Your task to perform on an android device: turn on bluetooth scan Image 0: 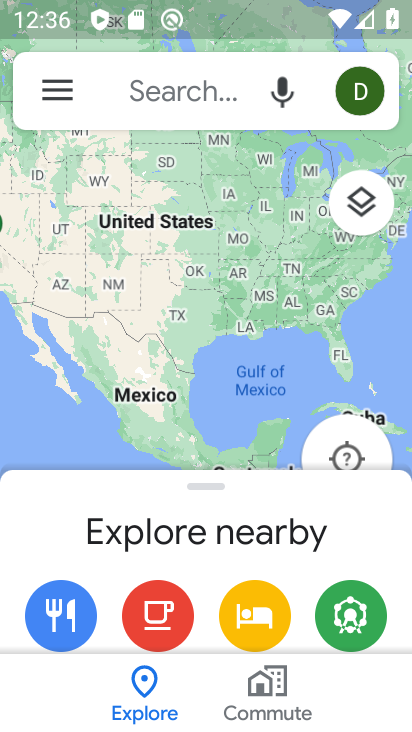
Step 0: press home button
Your task to perform on an android device: turn on bluetooth scan Image 1: 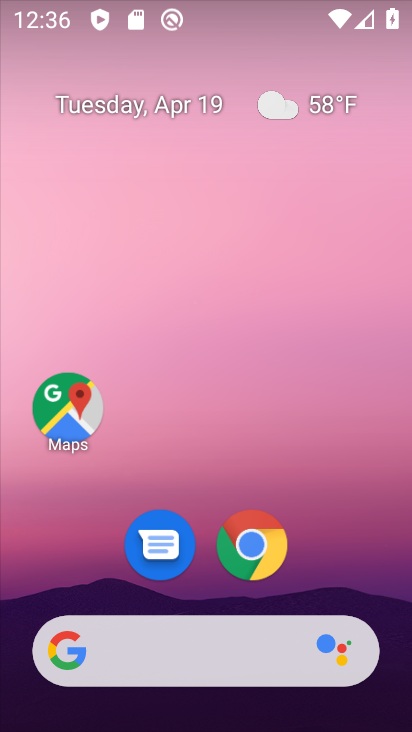
Step 1: drag from (145, 416) to (257, 7)
Your task to perform on an android device: turn on bluetooth scan Image 2: 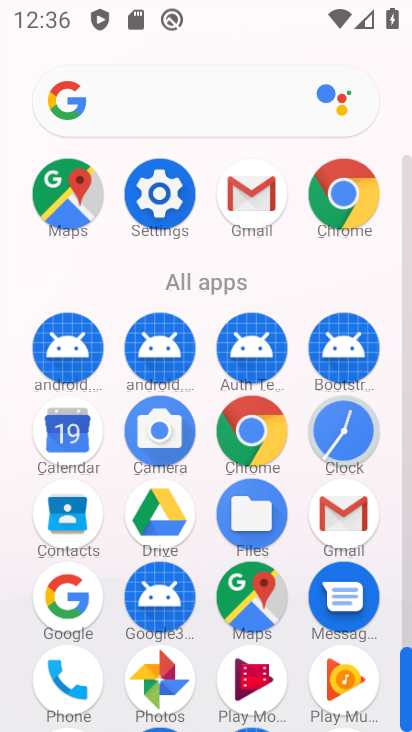
Step 2: click (171, 186)
Your task to perform on an android device: turn on bluetooth scan Image 3: 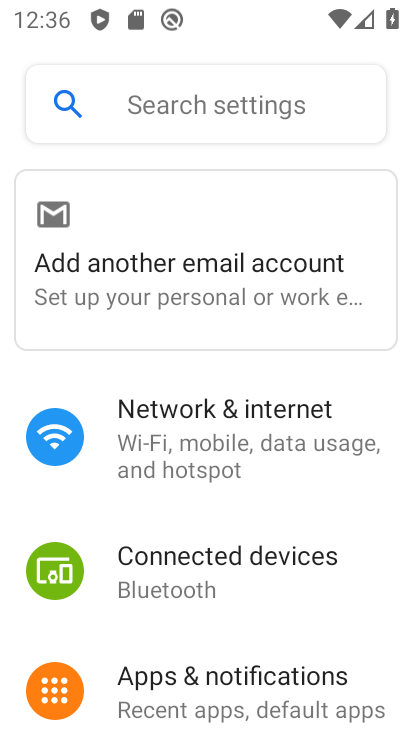
Step 3: drag from (218, 591) to (317, 123)
Your task to perform on an android device: turn on bluetooth scan Image 4: 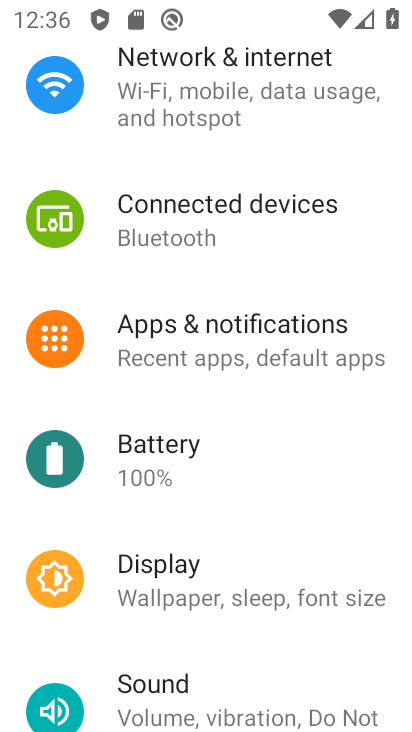
Step 4: drag from (215, 530) to (296, 120)
Your task to perform on an android device: turn on bluetooth scan Image 5: 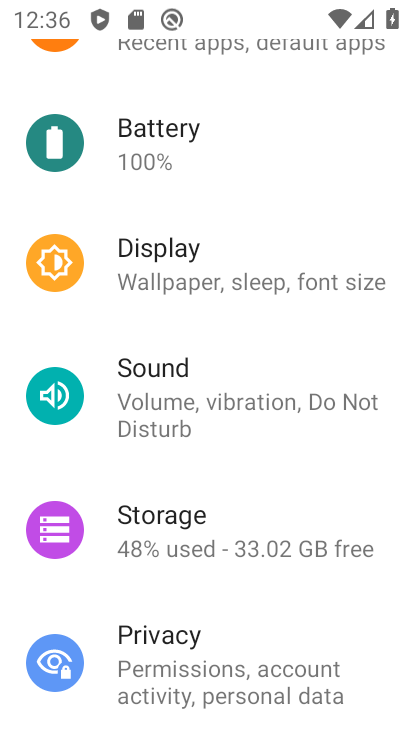
Step 5: drag from (182, 533) to (264, 90)
Your task to perform on an android device: turn on bluetooth scan Image 6: 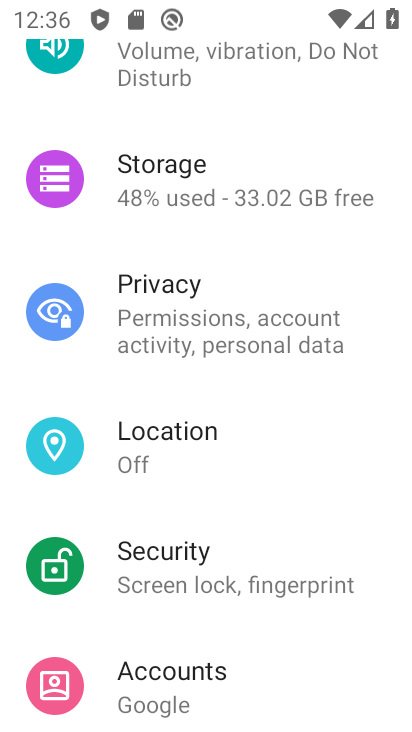
Step 6: drag from (218, 87) to (172, 651)
Your task to perform on an android device: turn on bluetooth scan Image 7: 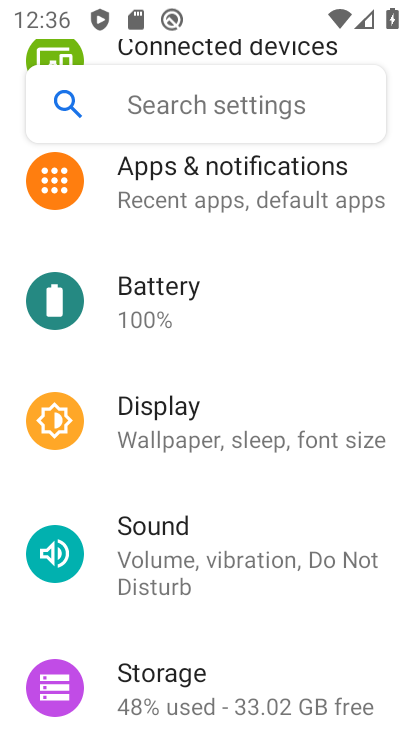
Step 7: drag from (193, 208) to (148, 656)
Your task to perform on an android device: turn on bluetooth scan Image 8: 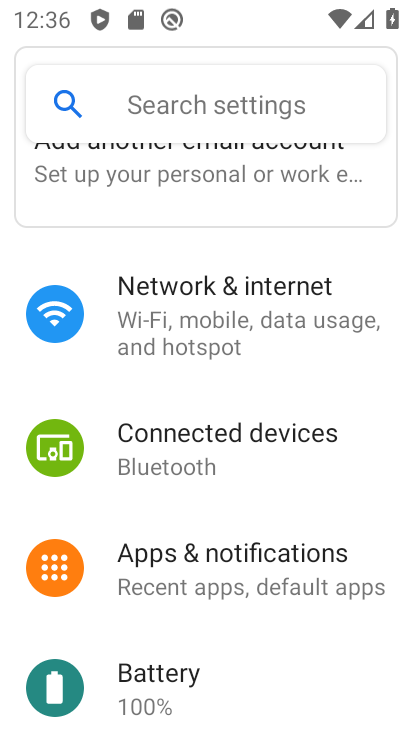
Step 8: click (151, 440)
Your task to perform on an android device: turn on bluetooth scan Image 9: 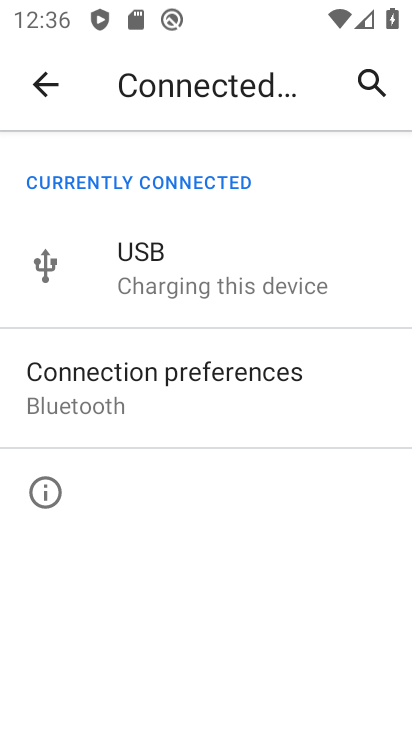
Step 9: click (154, 397)
Your task to perform on an android device: turn on bluetooth scan Image 10: 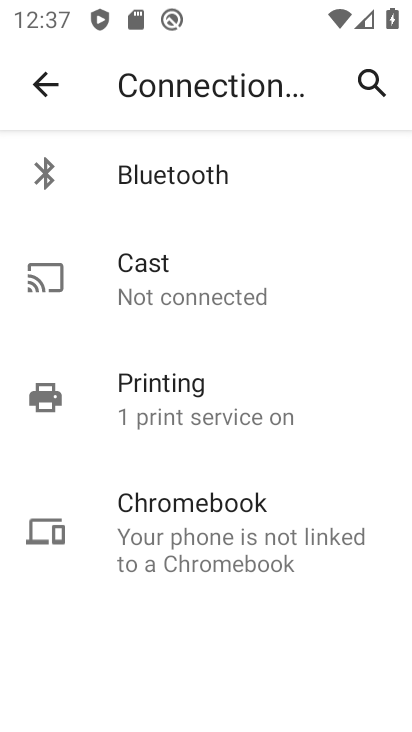
Step 10: click (162, 171)
Your task to perform on an android device: turn on bluetooth scan Image 11: 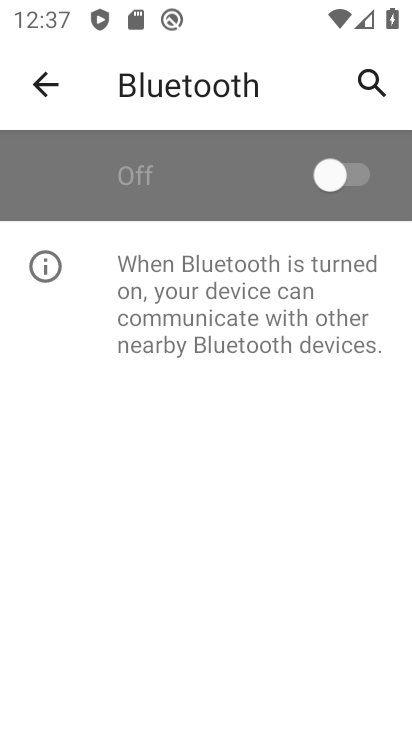
Step 11: click (333, 157)
Your task to perform on an android device: turn on bluetooth scan Image 12: 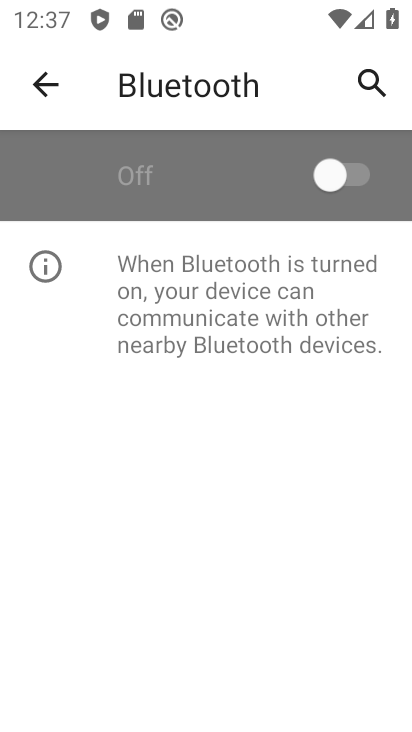
Step 12: task complete